Your task to perform on an android device: turn off javascript in the chrome app Image 0: 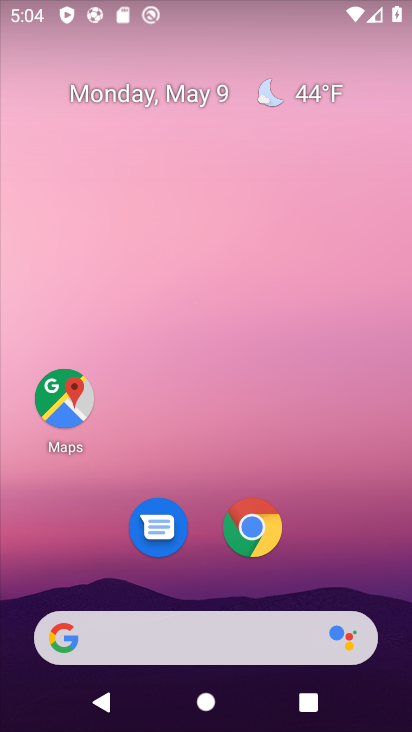
Step 0: click (256, 521)
Your task to perform on an android device: turn off javascript in the chrome app Image 1: 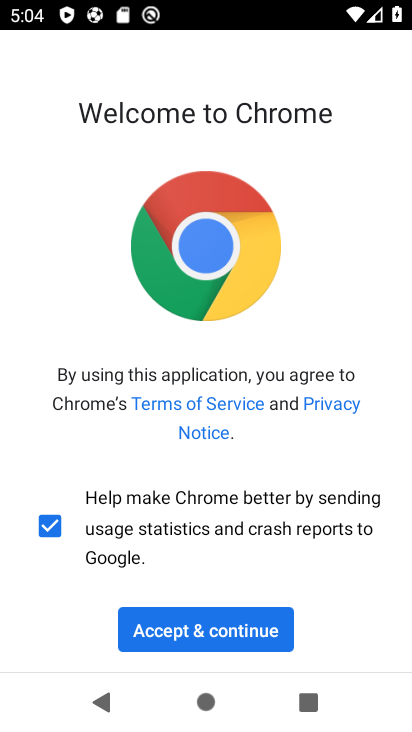
Step 1: click (198, 623)
Your task to perform on an android device: turn off javascript in the chrome app Image 2: 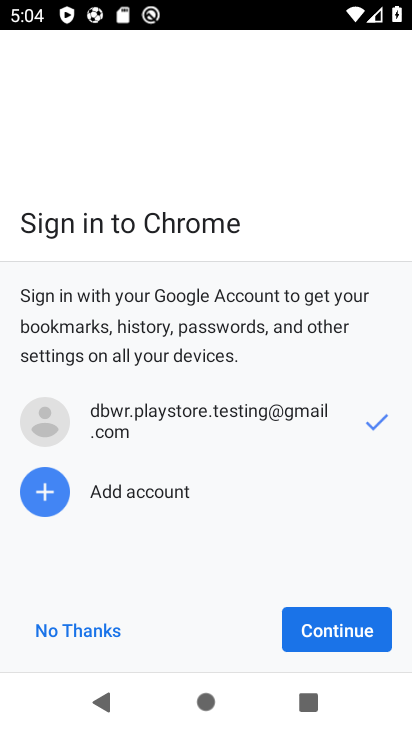
Step 2: click (311, 619)
Your task to perform on an android device: turn off javascript in the chrome app Image 3: 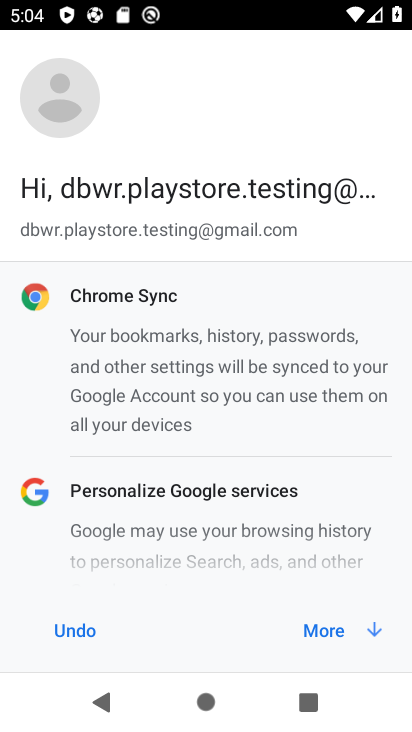
Step 3: click (315, 631)
Your task to perform on an android device: turn off javascript in the chrome app Image 4: 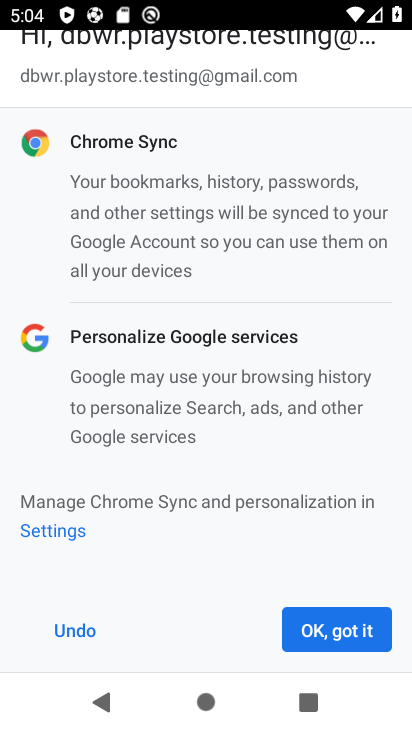
Step 4: click (314, 632)
Your task to perform on an android device: turn off javascript in the chrome app Image 5: 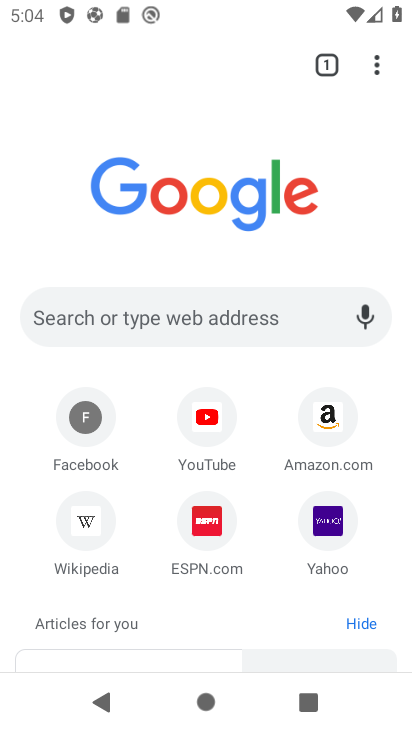
Step 5: drag from (375, 67) to (166, 541)
Your task to perform on an android device: turn off javascript in the chrome app Image 6: 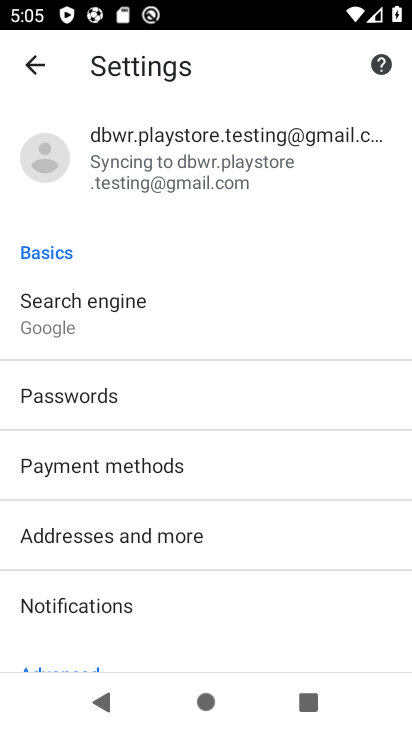
Step 6: drag from (246, 509) to (246, 202)
Your task to perform on an android device: turn off javascript in the chrome app Image 7: 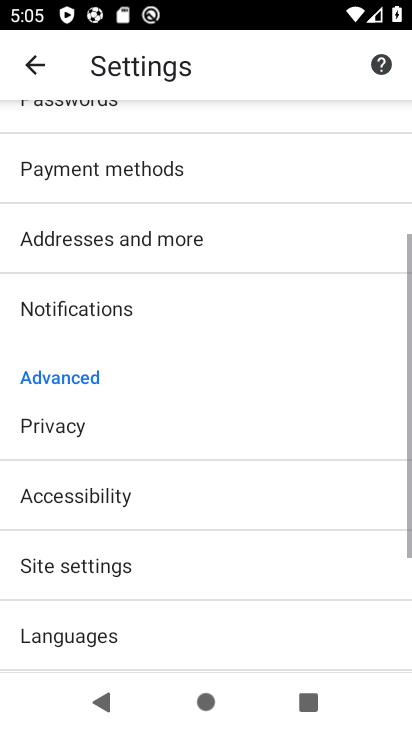
Step 7: drag from (245, 481) to (255, 167)
Your task to perform on an android device: turn off javascript in the chrome app Image 8: 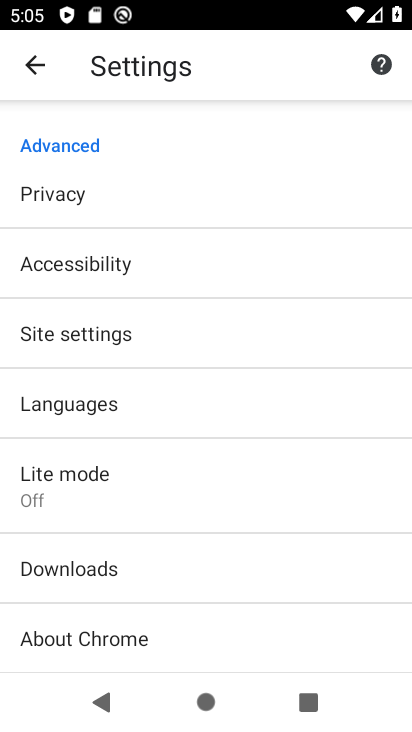
Step 8: drag from (249, 530) to (245, 150)
Your task to perform on an android device: turn off javascript in the chrome app Image 9: 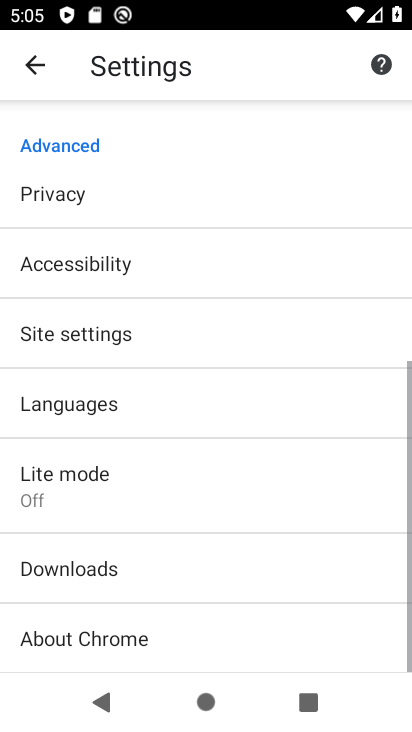
Step 9: drag from (235, 200) to (208, 578)
Your task to perform on an android device: turn off javascript in the chrome app Image 10: 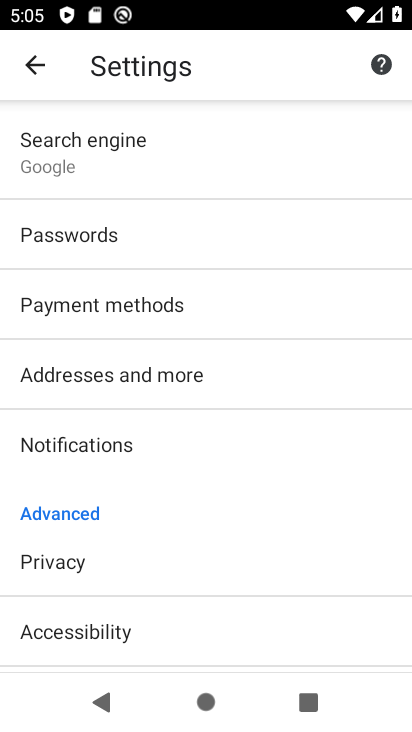
Step 10: drag from (232, 597) to (269, 130)
Your task to perform on an android device: turn off javascript in the chrome app Image 11: 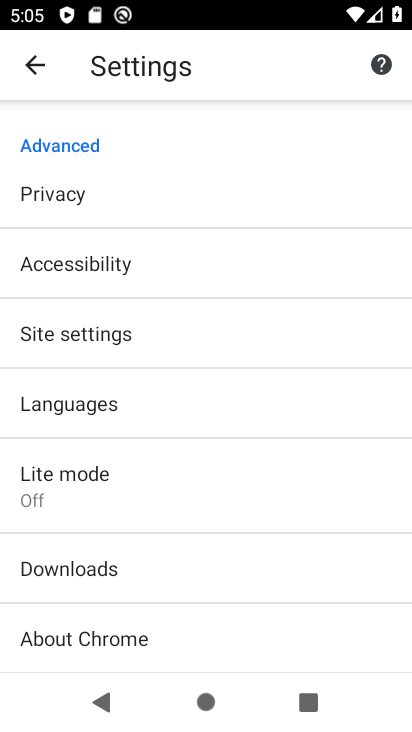
Step 11: click (132, 340)
Your task to perform on an android device: turn off javascript in the chrome app Image 12: 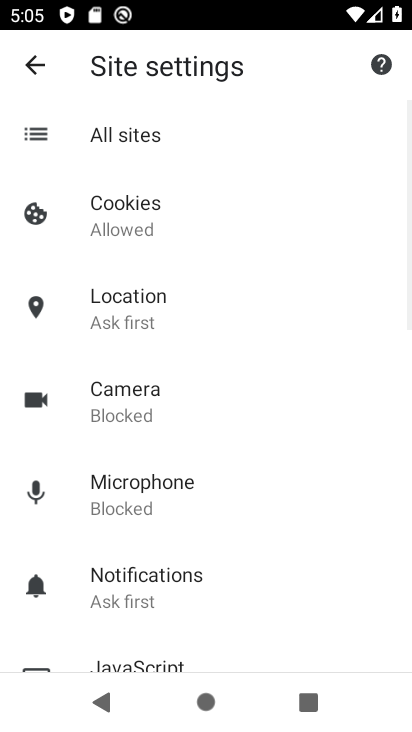
Step 12: drag from (226, 504) to (251, 185)
Your task to perform on an android device: turn off javascript in the chrome app Image 13: 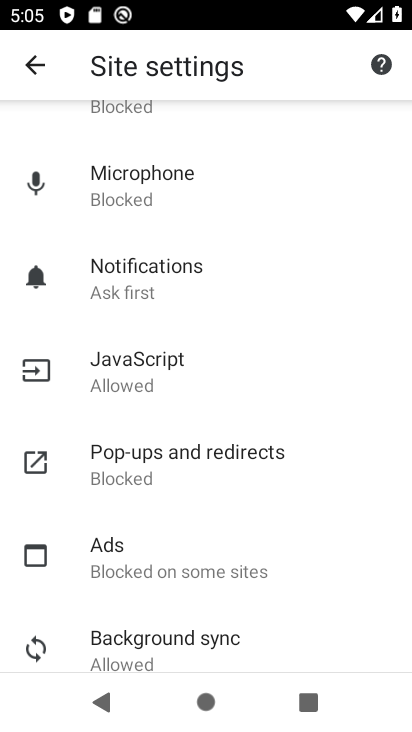
Step 13: click (170, 367)
Your task to perform on an android device: turn off javascript in the chrome app Image 14: 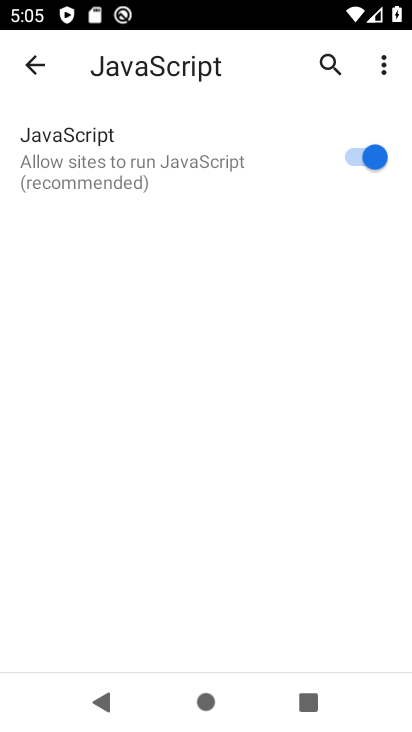
Step 14: click (346, 157)
Your task to perform on an android device: turn off javascript in the chrome app Image 15: 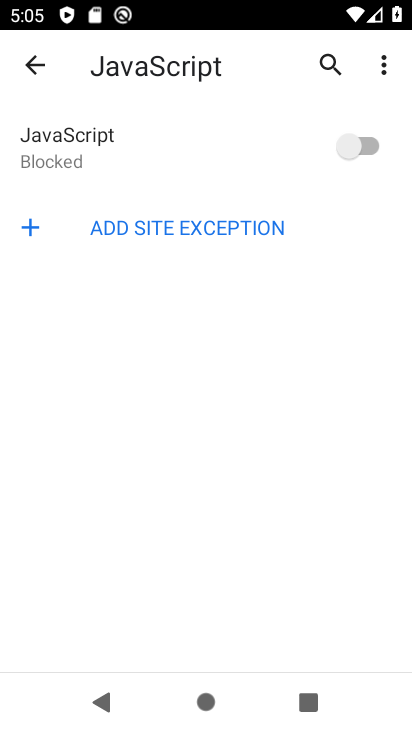
Step 15: task complete